Your task to perform on an android device: check battery use Image 0: 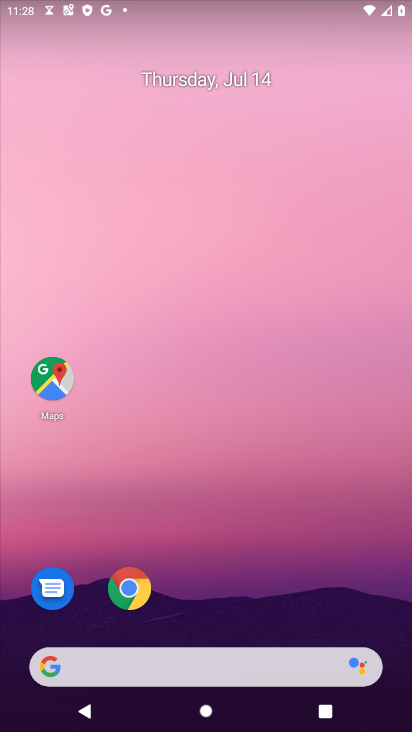
Step 0: press home button
Your task to perform on an android device: check battery use Image 1: 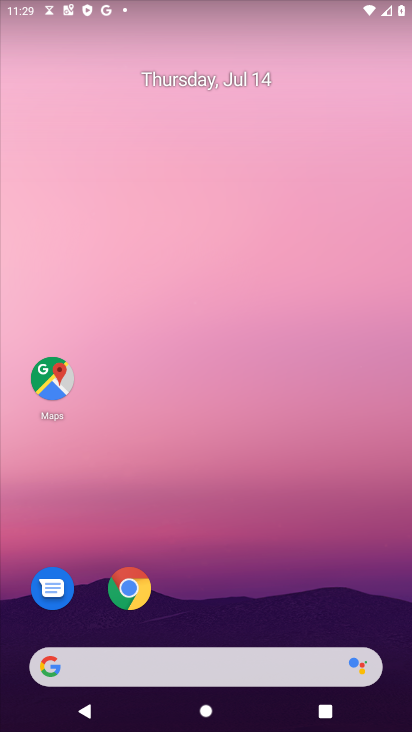
Step 1: drag from (222, 538) to (333, 114)
Your task to perform on an android device: check battery use Image 2: 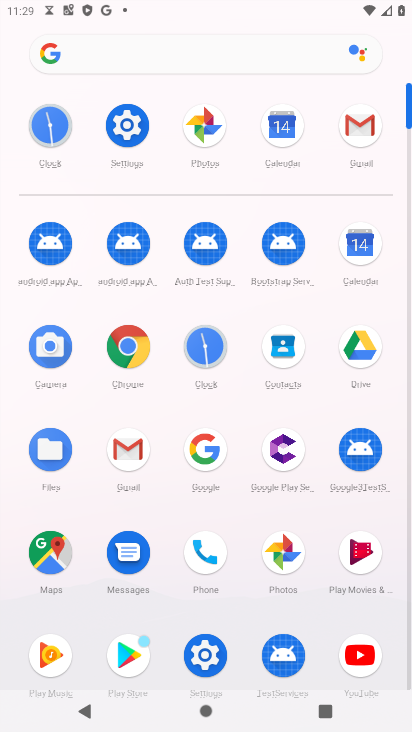
Step 2: click (132, 126)
Your task to perform on an android device: check battery use Image 3: 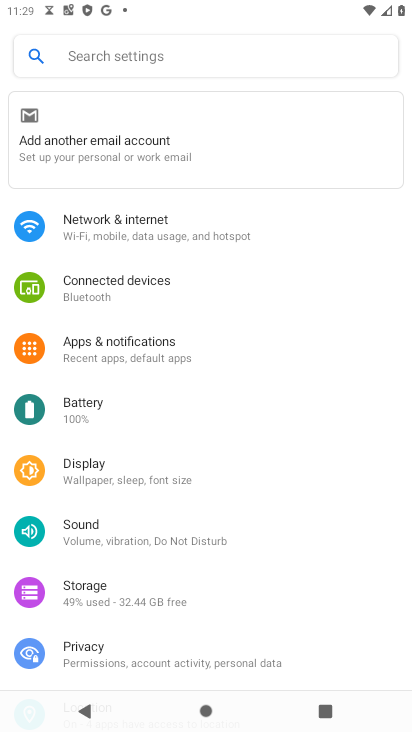
Step 3: click (92, 405)
Your task to perform on an android device: check battery use Image 4: 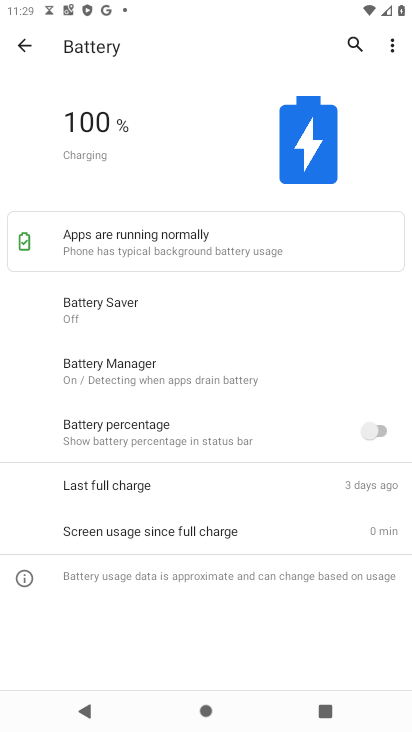
Step 4: click (389, 45)
Your task to perform on an android device: check battery use Image 5: 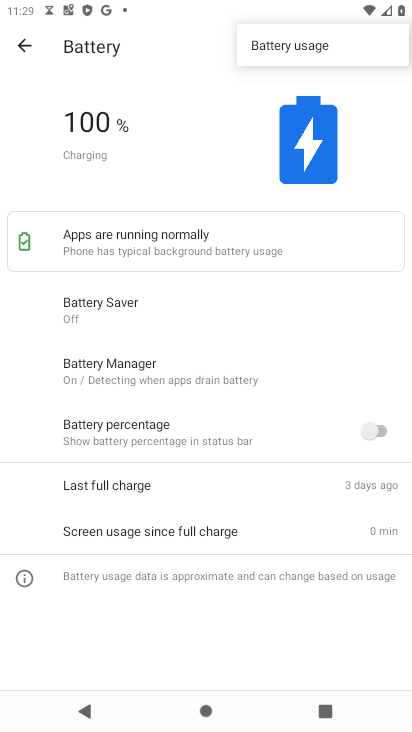
Step 5: click (316, 40)
Your task to perform on an android device: check battery use Image 6: 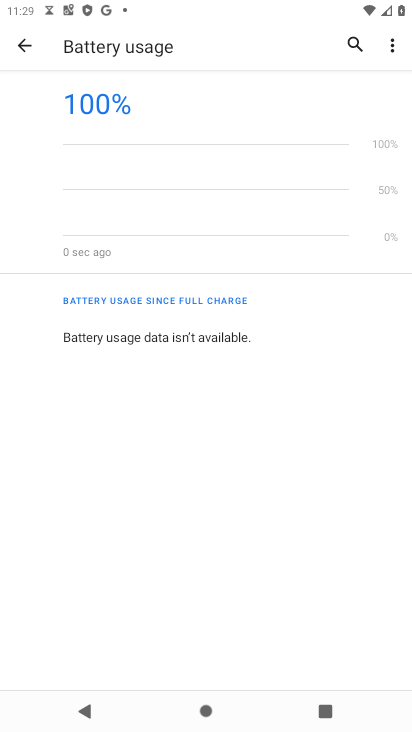
Step 6: task complete